Your task to perform on an android device: choose inbox layout in the gmail app Image 0: 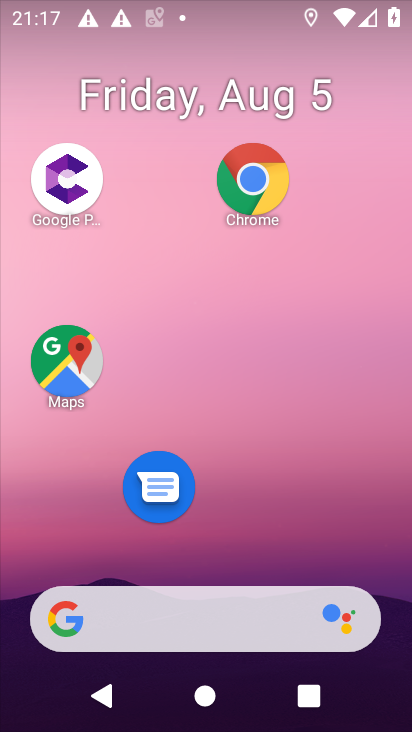
Step 0: drag from (240, 559) to (317, 18)
Your task to perform on an android device: choose inbox layout in the gmail app Image 1: 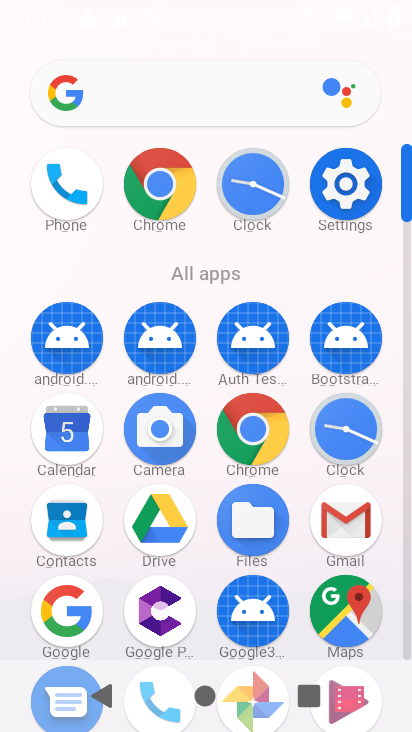
Step 1: click (353, 530)
Your task to perform on an android device: choose inbox layout in the gmail app Image 2: 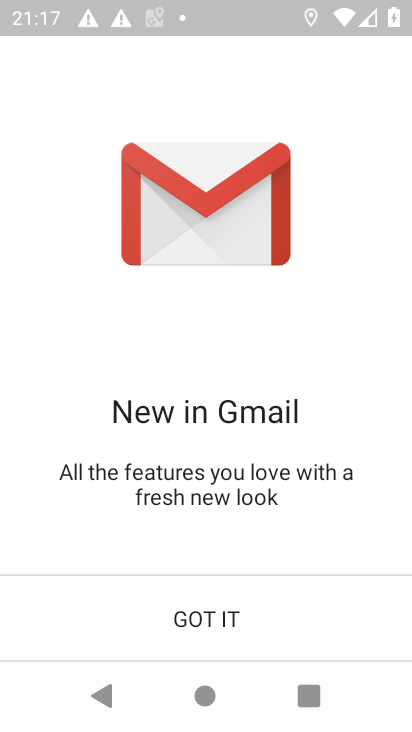
Step 2: click (240, 625)
Your task to perform on an android device: choose inbox layout in the gmail app Image 3: 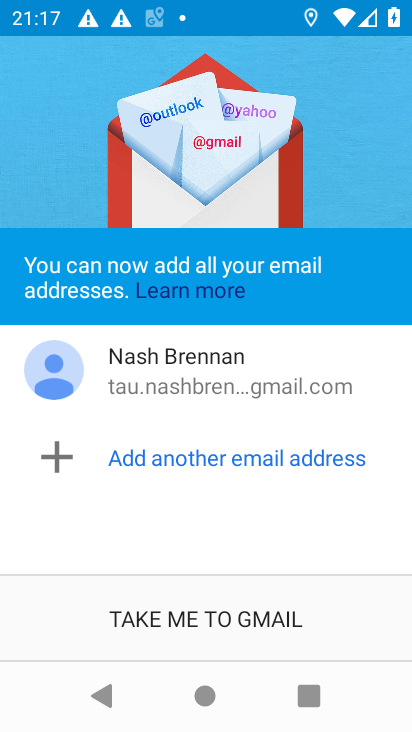
Step 3: click (236, 625)
Your task to perform on an android device: choose inbox layout in the gmail app Image 4: 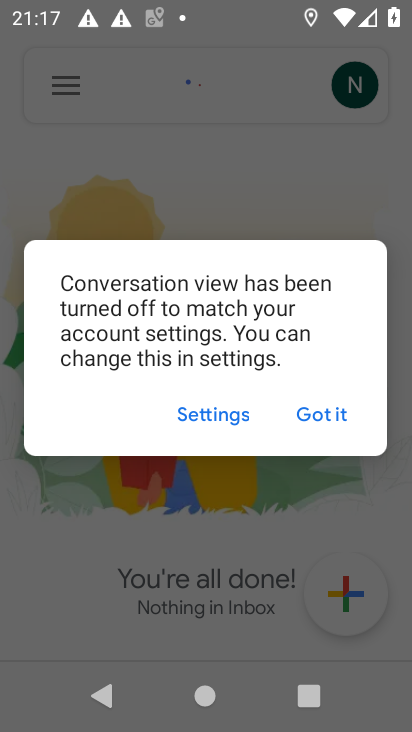
Step 4: click (306, 418)
Your task to perform on an android device: choose inbox layout in the gmail app Image 5: 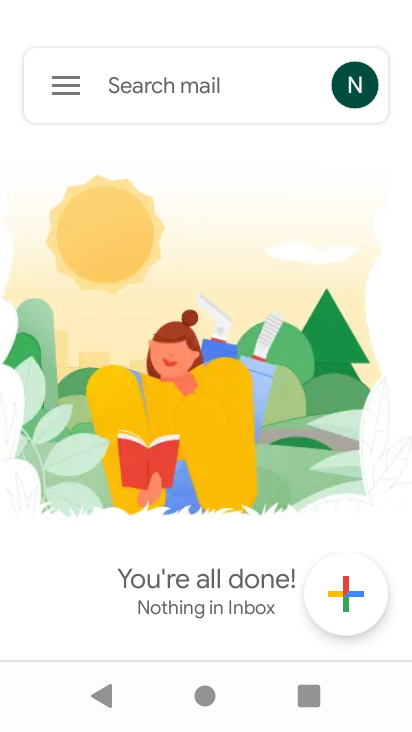
Step 5: click (76, 79)
Your task to perform on an android device: choose inbox layout in the gmail app Image 6: 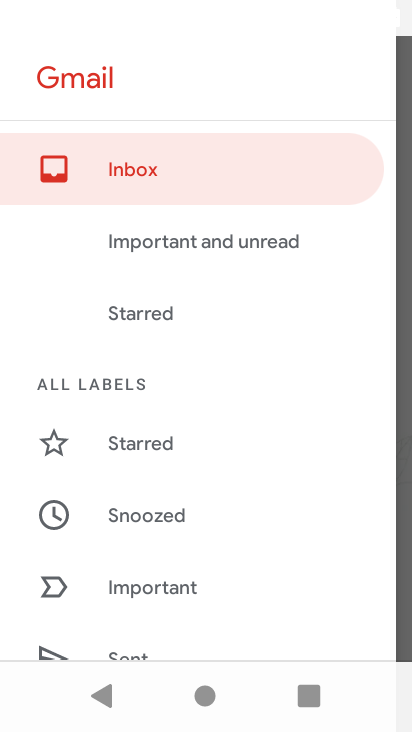
Step 6: drag from (322, 433) to (324, 51)
Your task to perform on an android device: choose inbox layout in the gmail app Image 7: 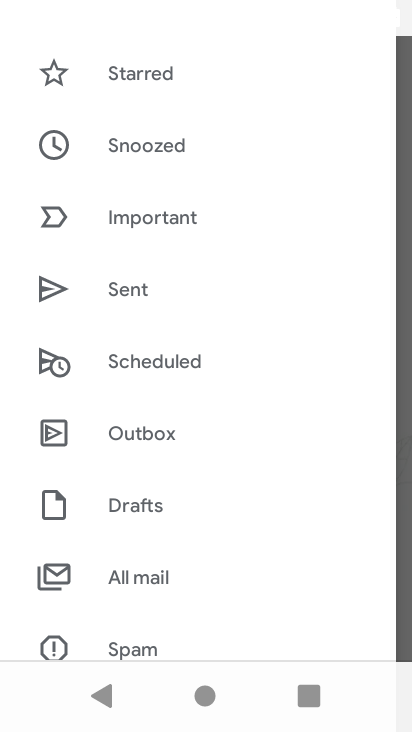
Step 7: drag from (300, 544) to (209, 175)
Your task to perform on an android device: choose inbox layout in the gmail app Image 8: 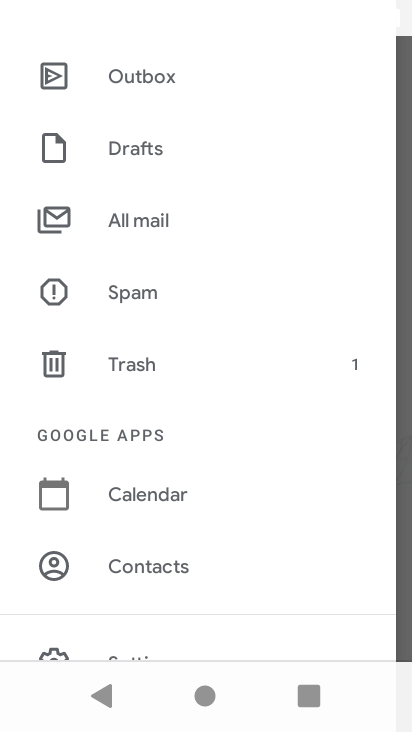
Step 8: click (51, 645)
Your task to perform on an android device: choose inbox layout in the gmail app Image 9: 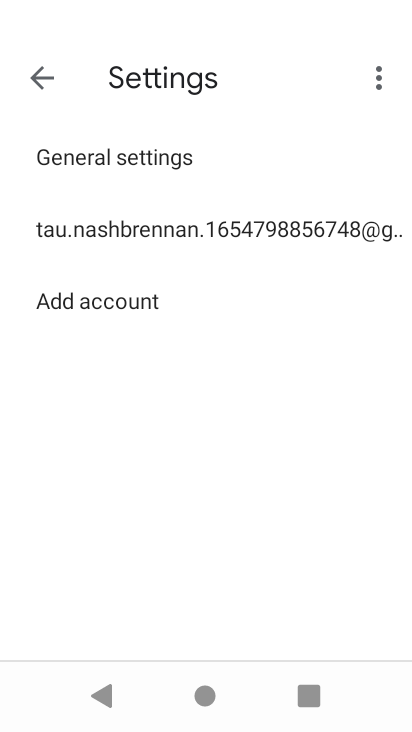
Step 9: click (111, 235)
Your task to perform on an android device: choose inbox layout in the gmail app Image 10: 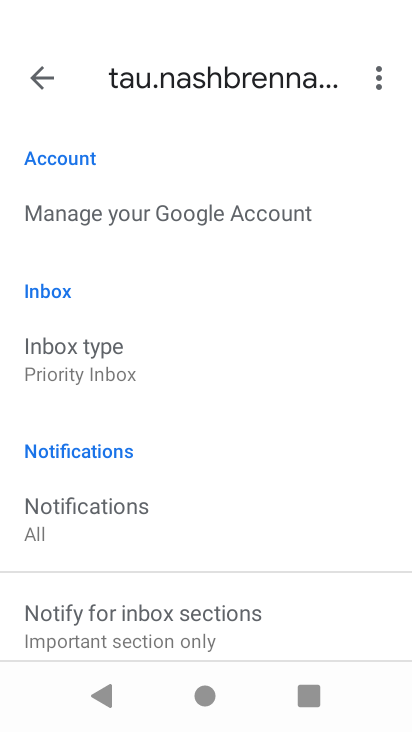
Step 10: click (119, 352)
Your task to perform on an android device: choose inbox layout in the gmail app Image 11: 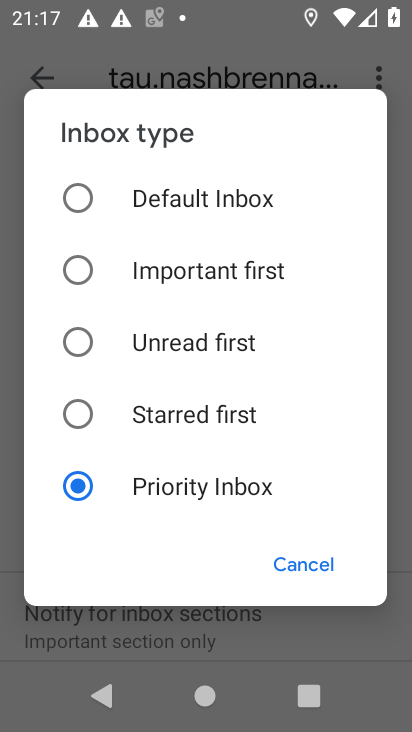
Step 11: click (316, 549)
Your task to perform on an android device: choose inbox layout in the gmail app Image 12: 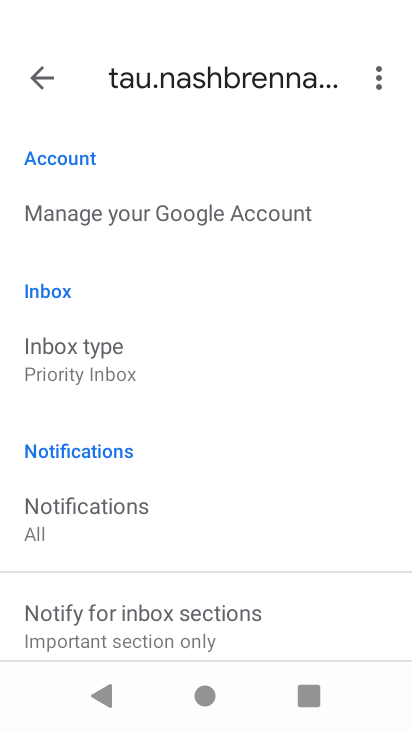
Step 12: click (28, 81)
Your task to perform on an android device: choose inbox layout in the gmail app Image 13: 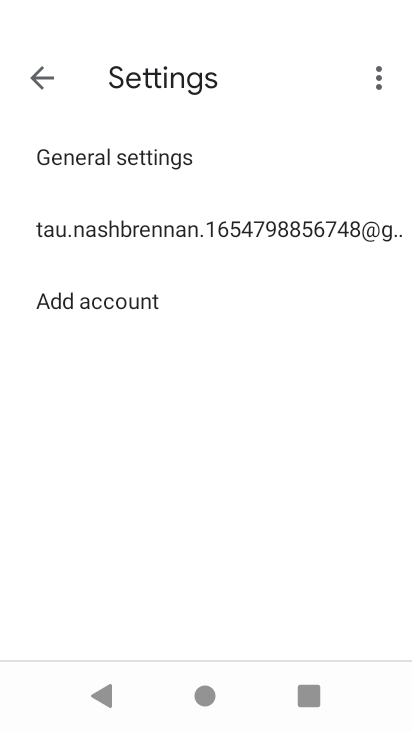
Step 13: click (28, 81)
Your task to perform on an android device: choose inbox layout in the gmail app Image 14: 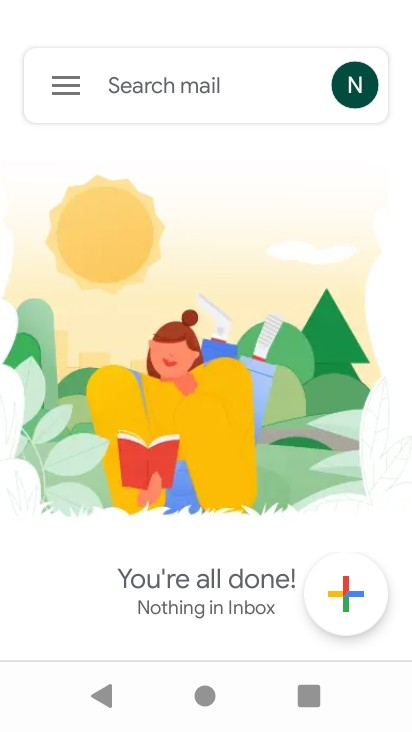
Step 14: task complete